Your task to perform on an android device: open a bookmark in the chrome app Image 0: 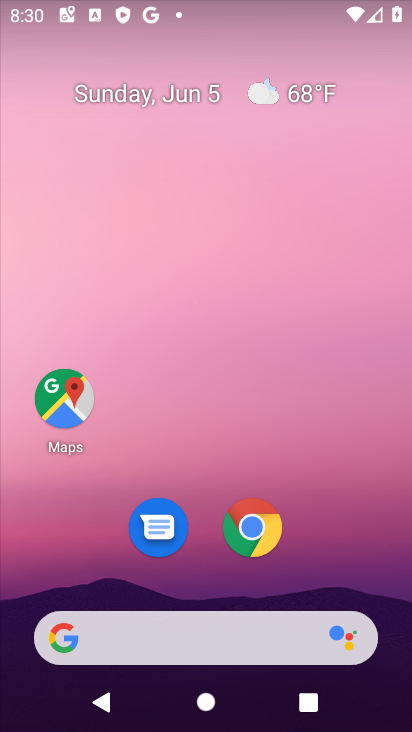
Step 0: click (247, 524)
Your task to perform on an android device: open a bookmark in the chrome app Image 1: 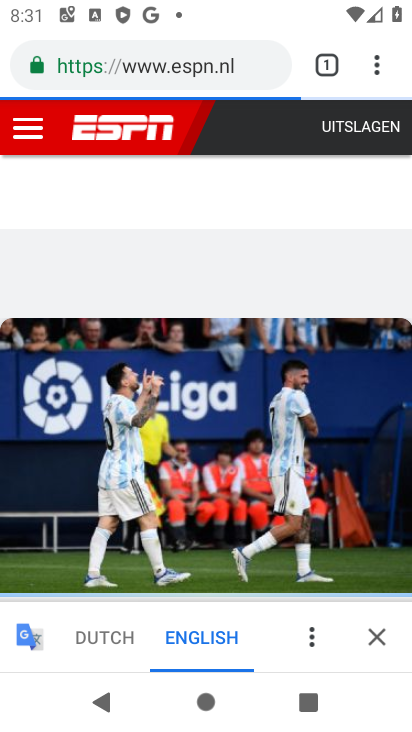
Step 1: click (390, 67)
Your task to perform on an android device: open a bookmark in the chrome app Image 2: 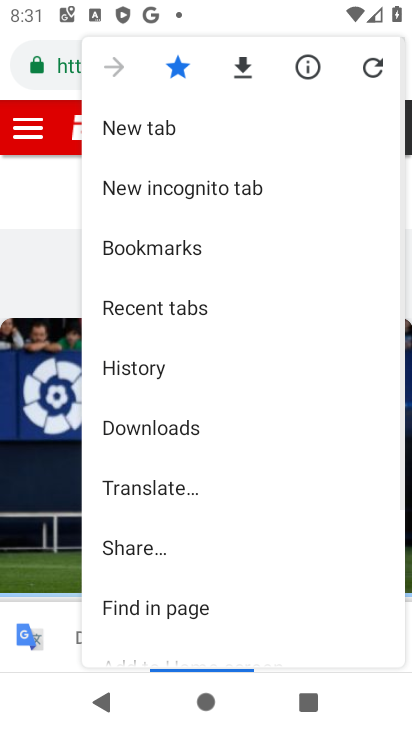
Step 2: click (109, 251)
Your task to perform on an android device: open a bookmark in the chrome app Image 3: 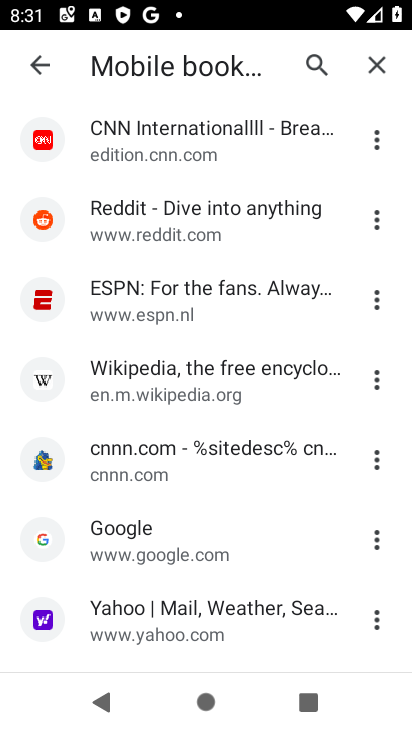
Step 3: click (195, 454)
Your task to perform on an android device: open a bookmark in the chrome app Image 4: 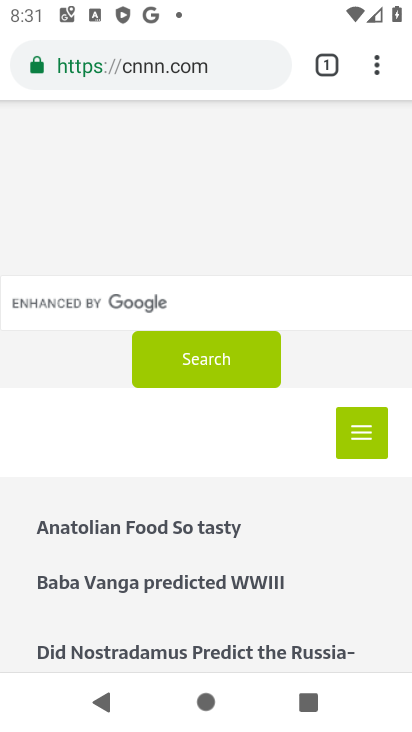
Step 4: task complete